Your task to perform on an android device: Clear all items from cart on bestbuy.com. Image 0: 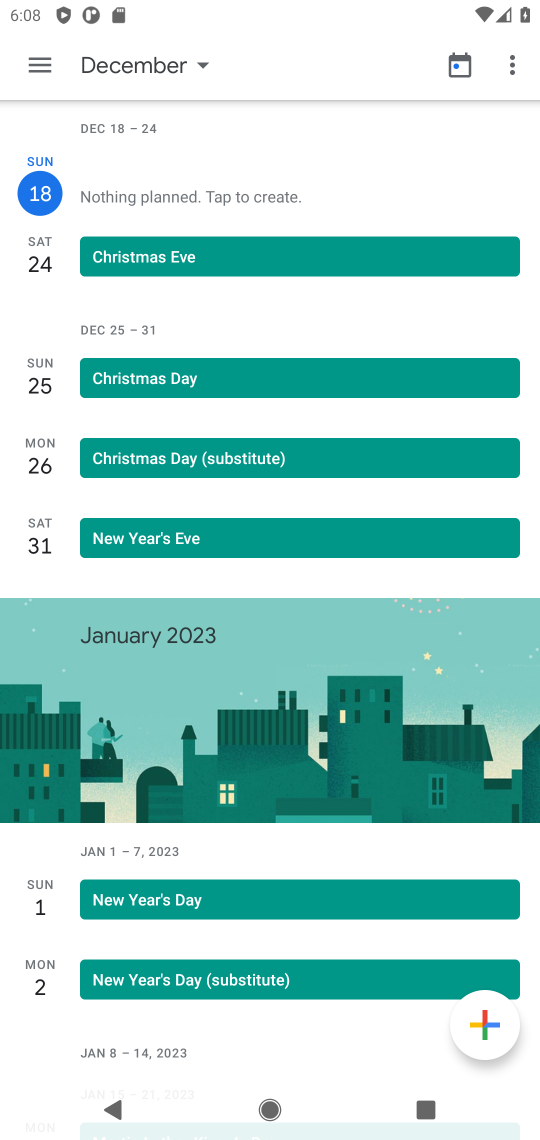
Step 0: press home button
Your task to perform on an android device: Clear all items from cart on bestbuy.com. Image 1: 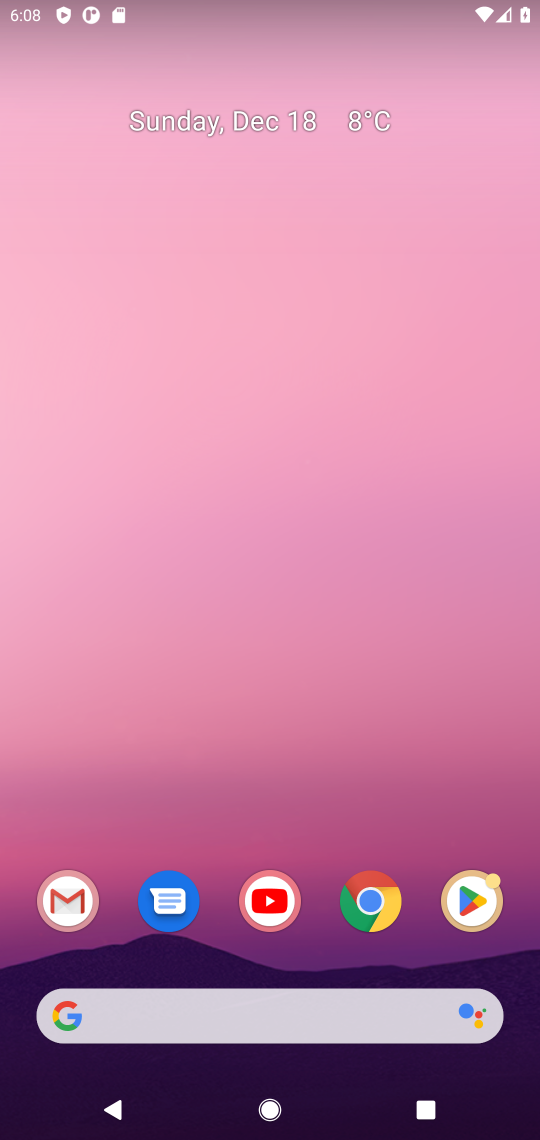
Step 1: click (356, 885)
Your task to perform on an android device: Clear all items from cart on bestbuy.com. Image 2: 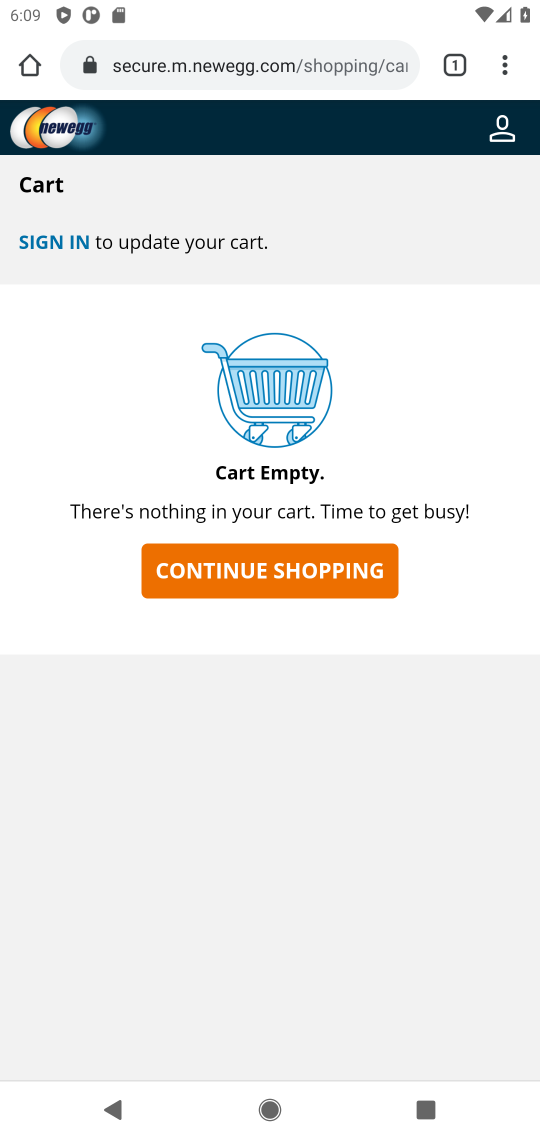
Step 2: click (258, 65)
Your task to perform on an android device: Clear all items from cart on bestbuy.com. Image 3: 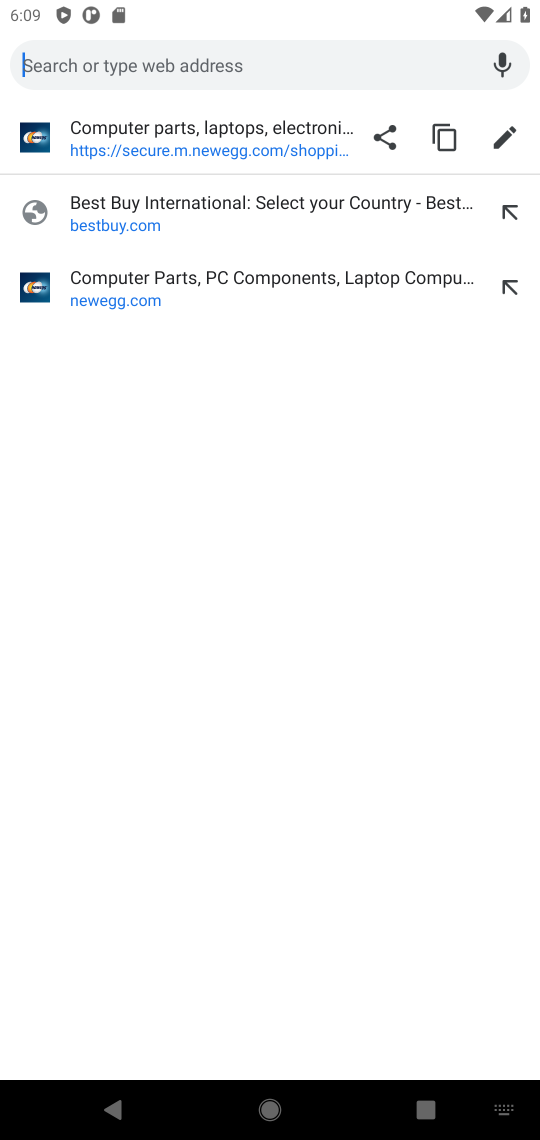
Step 3: type "bestbuy"
Your task to perform on an android device: Clear all items from cart on bestbuy.com. Image 4: 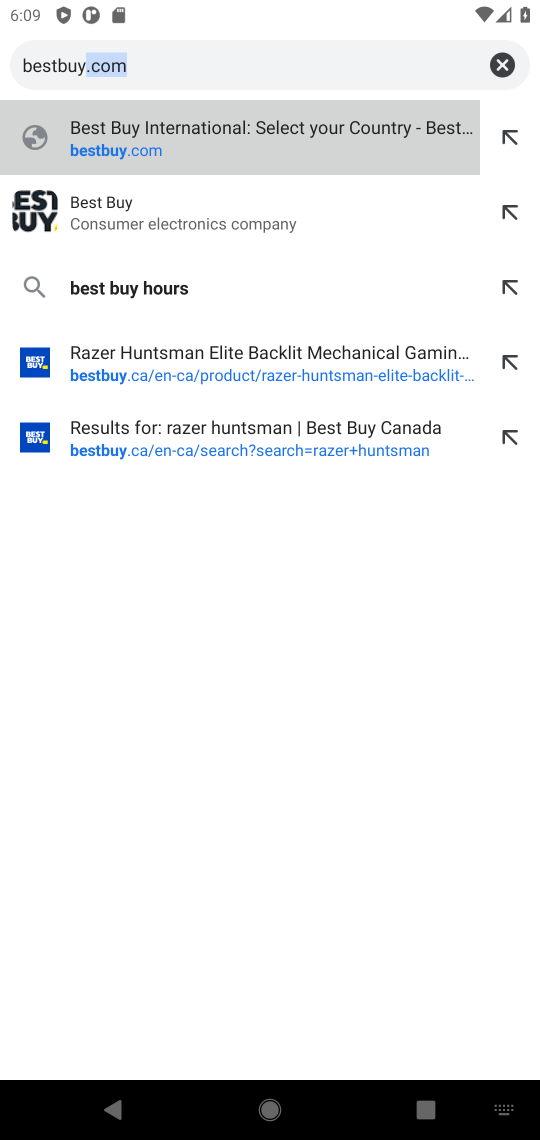
Step 4: click (259, 143)
Your task to perform on an android device: Clear all items from cart on bestbuy.com. Image 5: 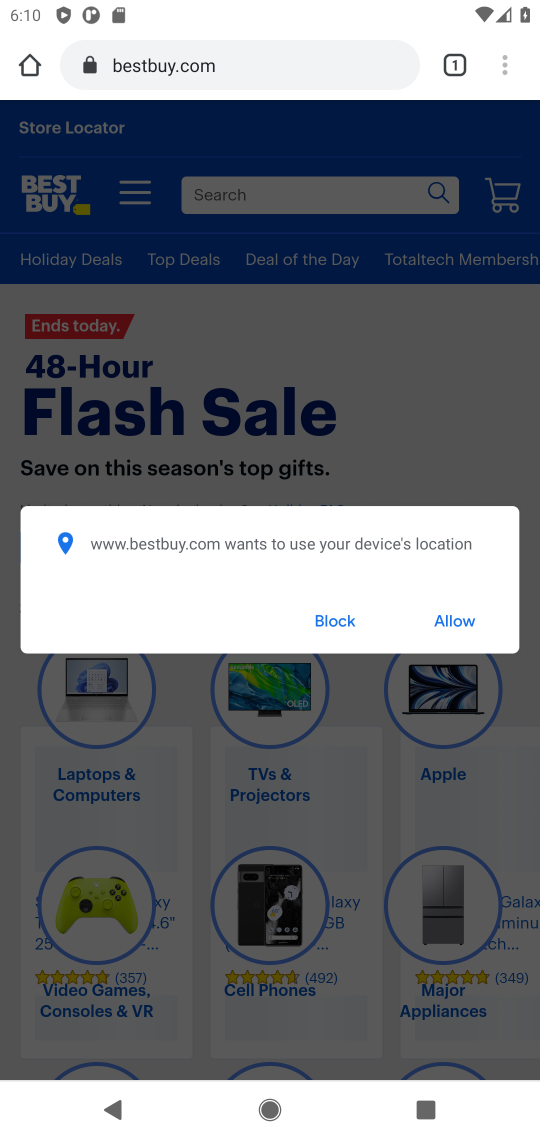
Step 5: click (495, 618)
Your task to perform on an android device: Clear all items from cart on bestbuy.com. Image 6: 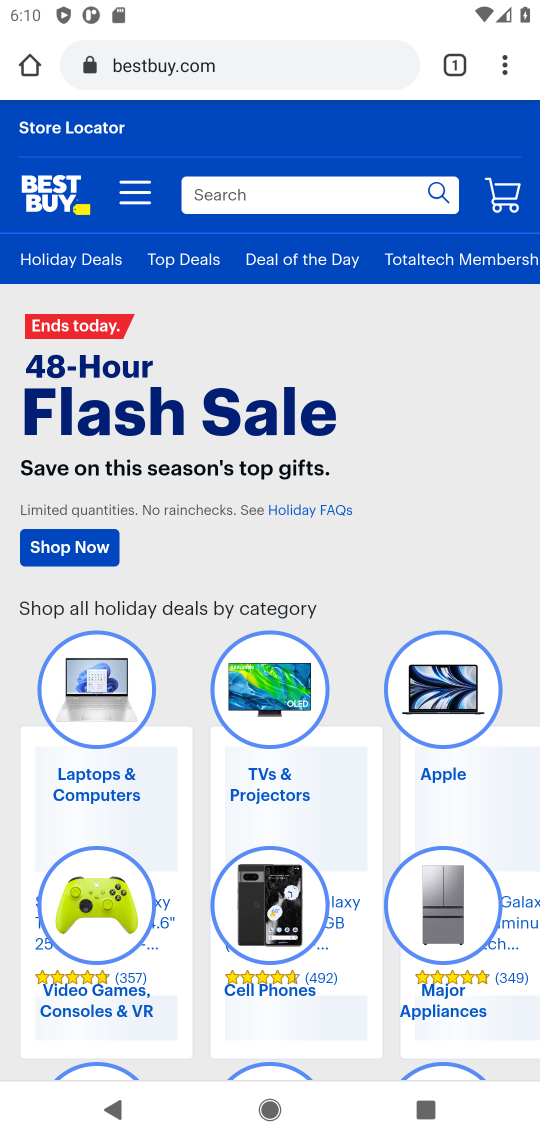
Step 6: click (481, 179)
Your task to perform on an android device: Clear all items from cart on bestbuy.com. Image 7: 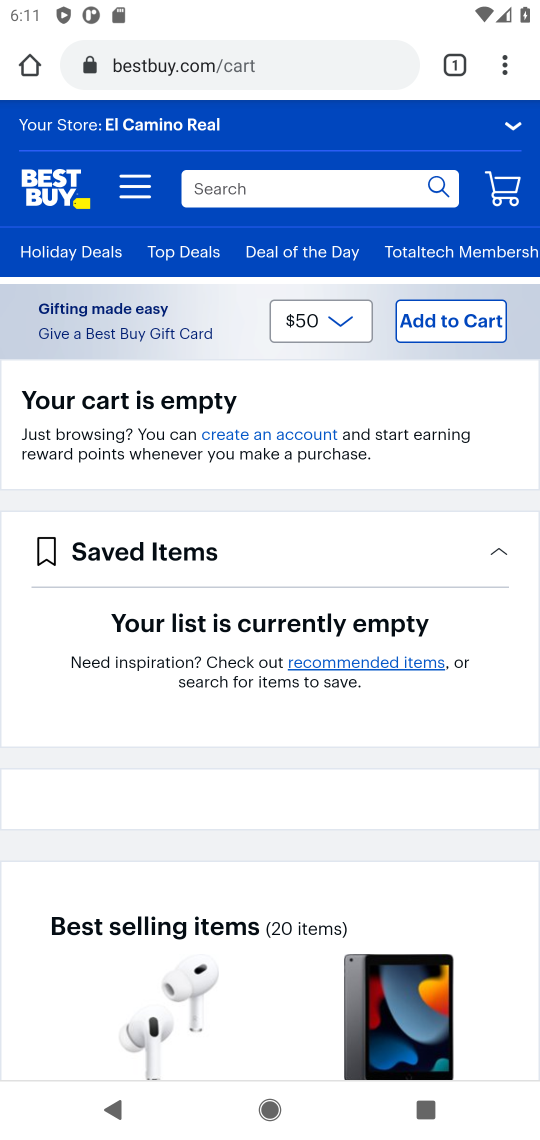
Step 7: click (514, 190)
Your task to perform on an android device: Clear all items from cart on bestbuy.com. Image 8: 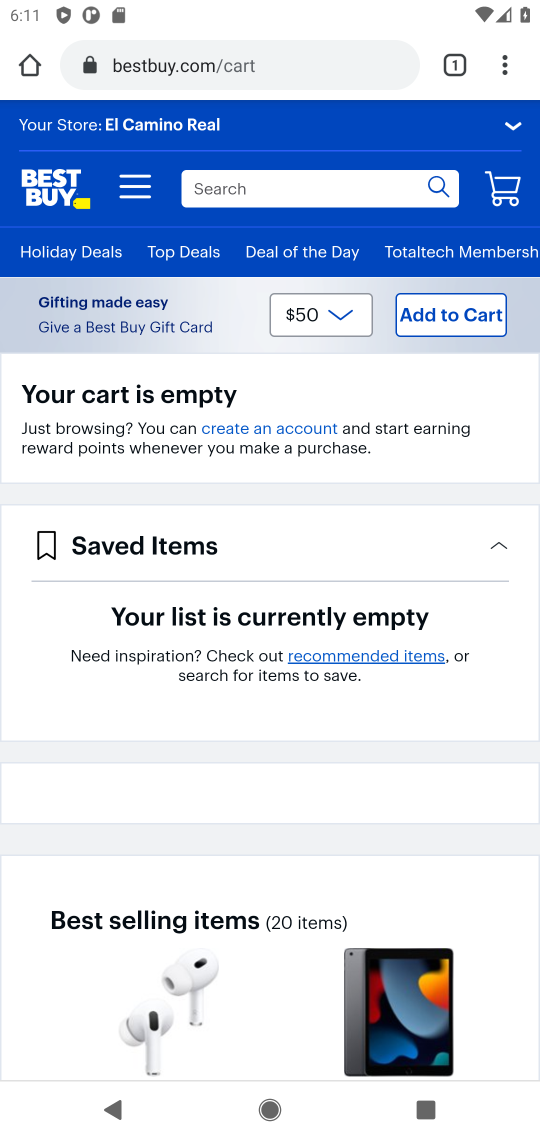
Step 8: task complete